Your task to perform on an android device: Search for "duracell triple a" on target, select the first entry, add it to the cart, then select checkout. Image 0: 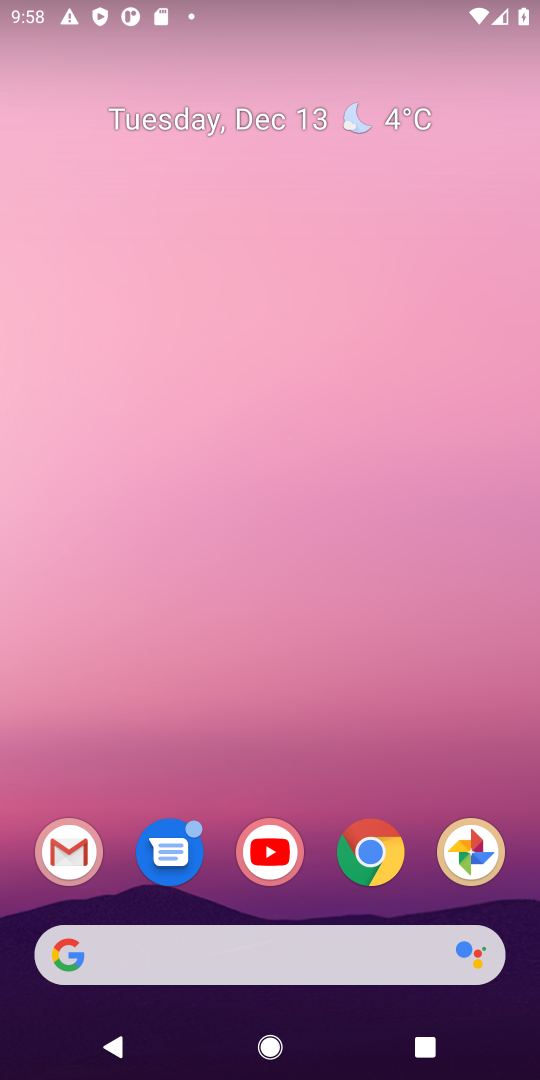
Step 0: click (116, 948)
Your task to perform on an android device: Search for "duracell triple a" on target, select the first entry, add it to the cart, then select checkout. Image 1: 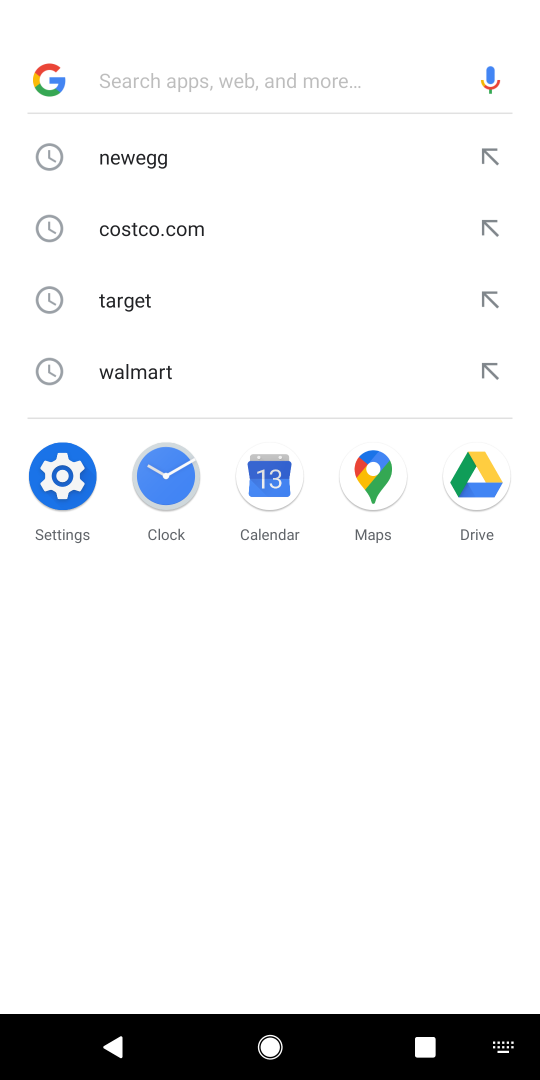
Step 1: type "target"
Your task to perform on an android device: Search for "duracell triple a" on target, select the first entry, add it to the cart, then select checkout. Image 2: 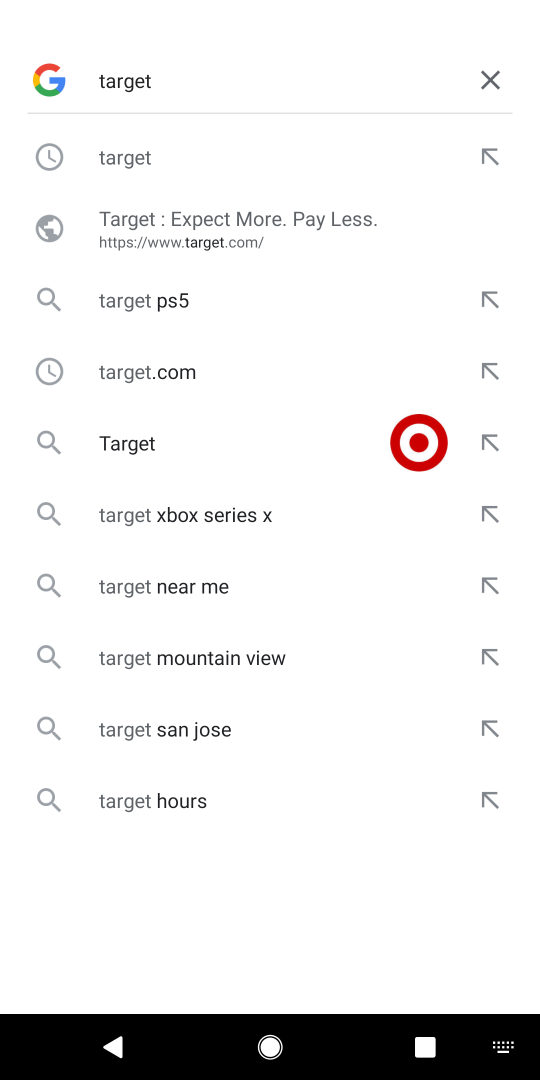
Step 2: press enter
Your task to perform on an android device: Search for "duracell triple a" on target, select the first entry, add it to the cart, then select checkout. Image 3: 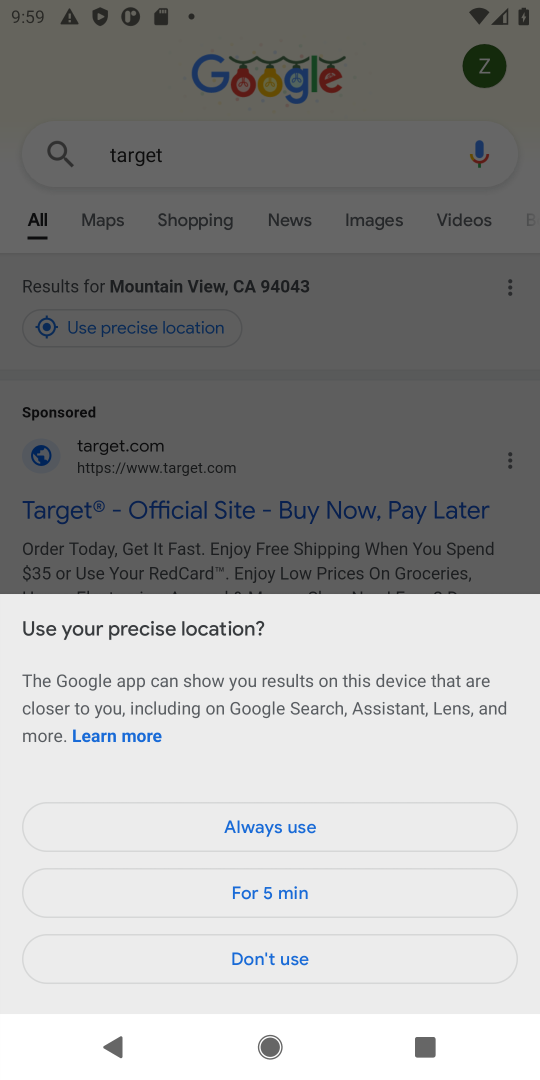
Step 3: click (316, 963)
Your task to perform on an android device: Search for "duracell triple a" on target, select the first entry, add it to the cart, then select checkout. Image 4: 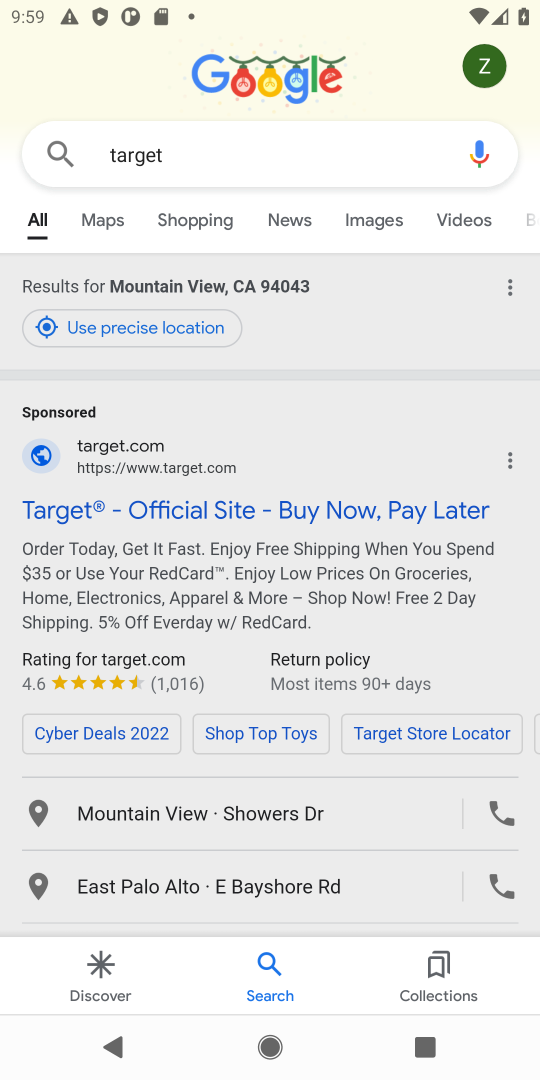
Step 4: click (173, 507)
Your task to perform on an android device: Search for "duracell triple a" on target, select the first entry, add it to the cart, then select checkout. Image 5: 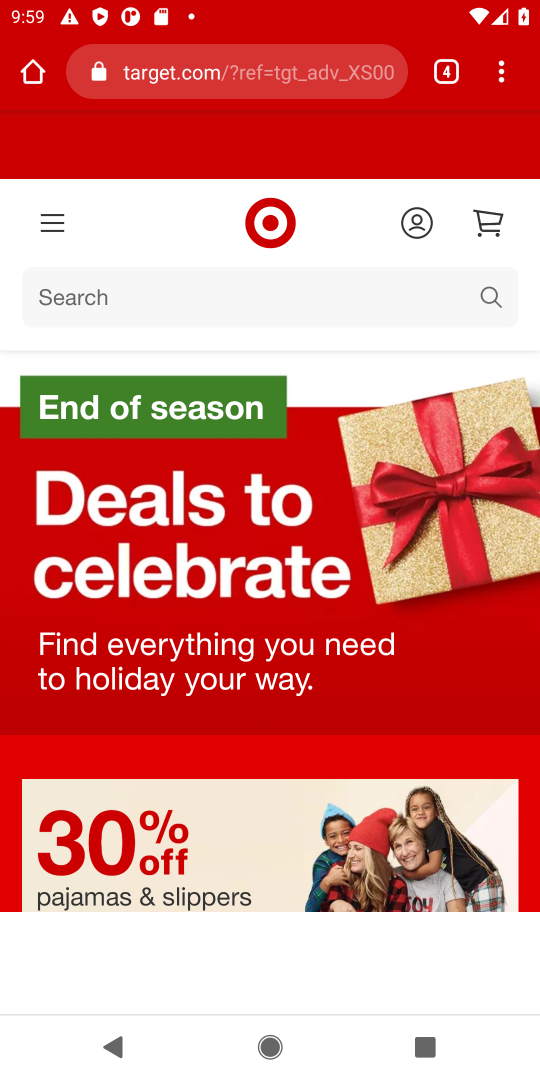
Step 5: click (146, 299)
Your task to perform on an android device: Search for "duracell triple a" on target, select the first entry, add it to the cart, then select checkout. Image 6: 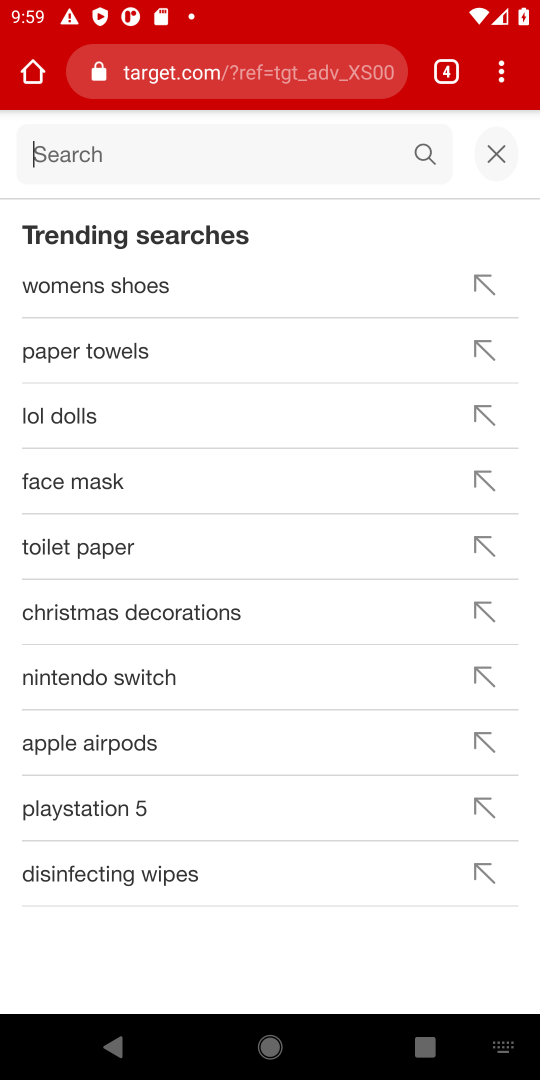
Step 6: press enter
Your task to perform on an android device: Search for "duracell triple a" on target, select the first entry, add it to the cart, then select checkout. Image 7: 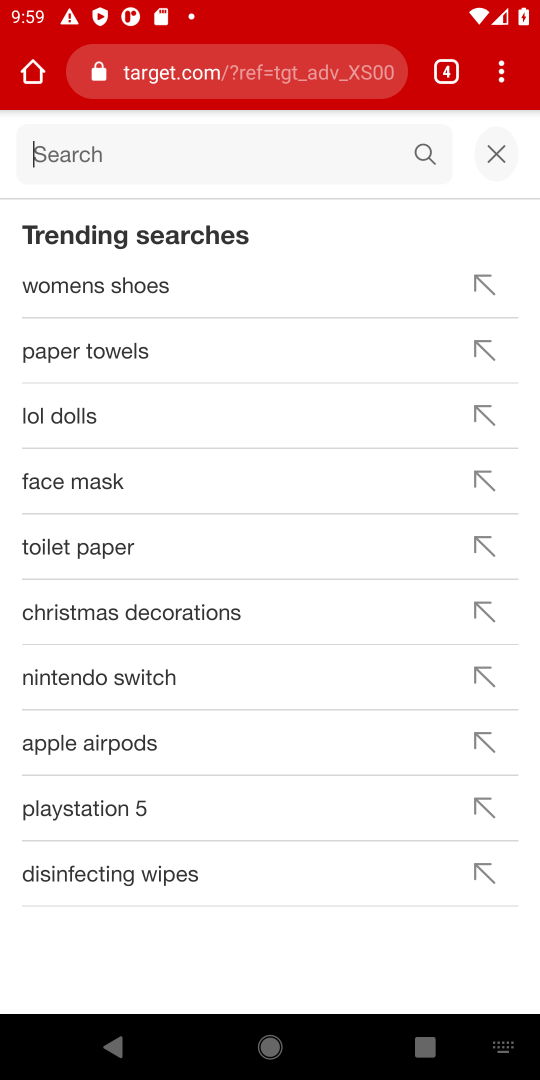
Step 7: type "duracell triple a"
Your task to perform on an android device: Search for "duracell triple a" on target, select the first entry, add it to the cart, then select checkout. Image 8: 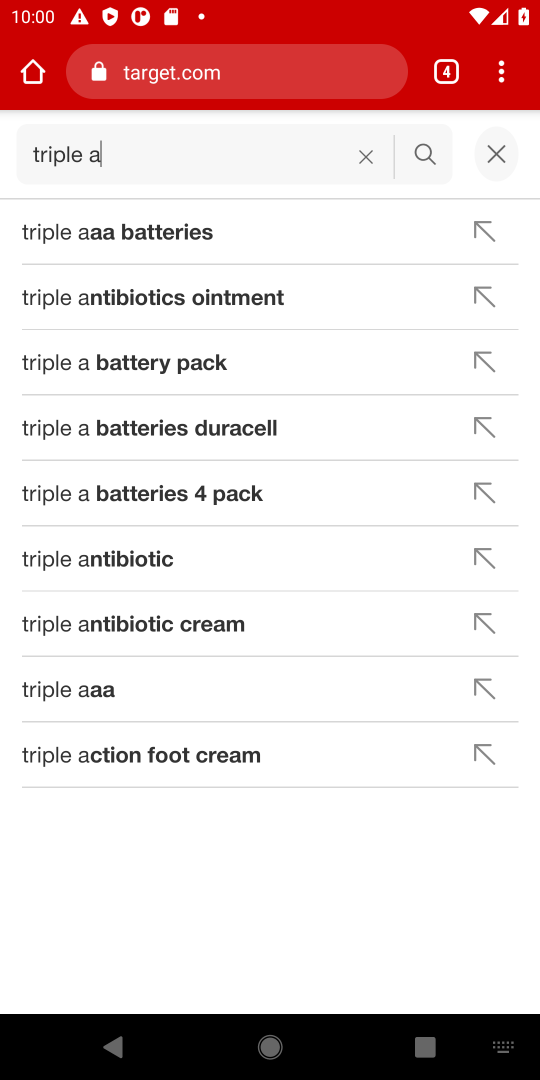
Step 8: press enter
Your task to perform on an android device: Search for "duracell triple a" on target, select the first entry, add it to the cart, then select checkout. Image 9: 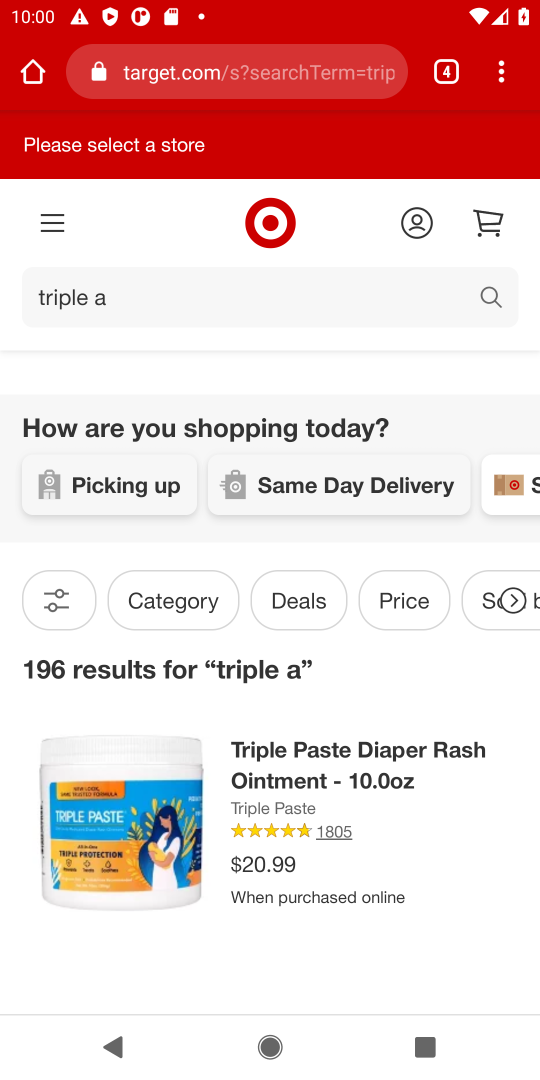
Step 9: task complete